Your task to perform on an android device: turn off data saver in the chrome app Image 0: 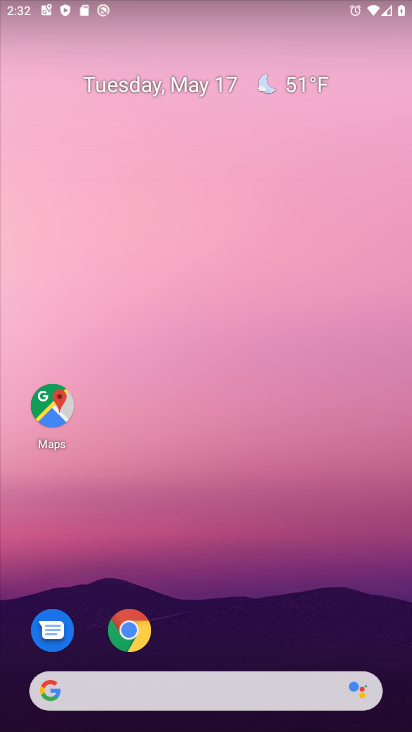
Step 0: click (129, 623)
Your task to perform on an android device: turn off data saver in the chrome app Image 1: 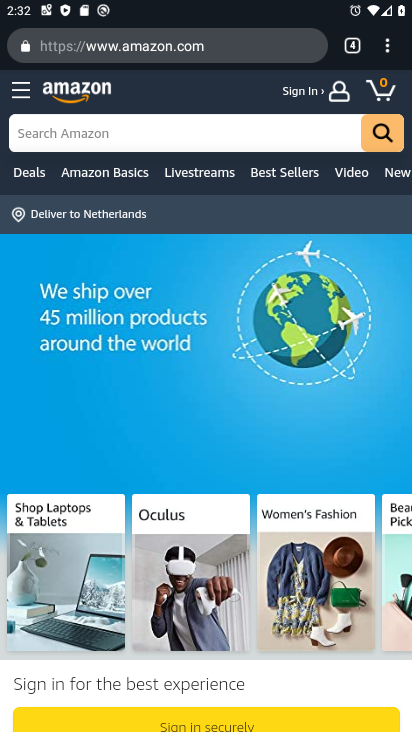
Step 1: drag from (386, 53) to (228, 541)
Your task to perform on an android device: turn off data saver in the chrome app Image 2: 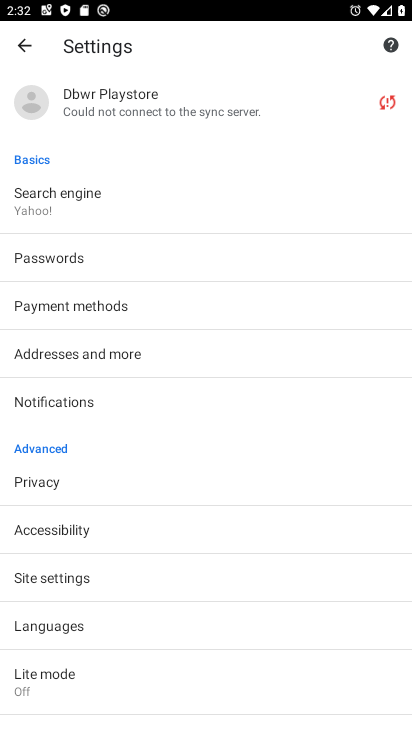
Step 2: click (57, 672)
Your task to perform on an android device: turn off data saver in the chrome app Image 3: 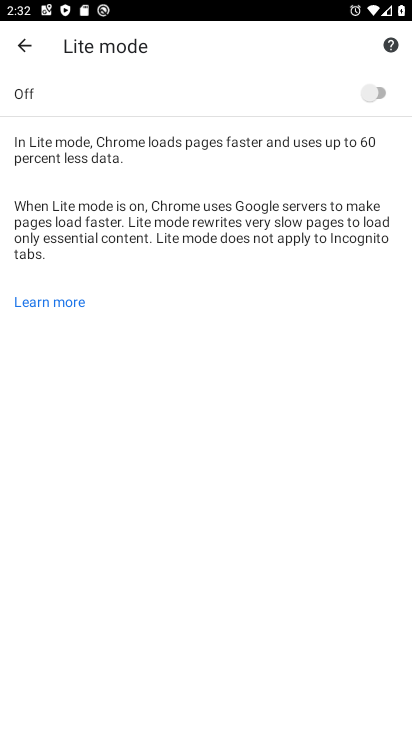
Step 3: task complete